Your task to perform on an android device: turn off translation in the chrome app Image 0: 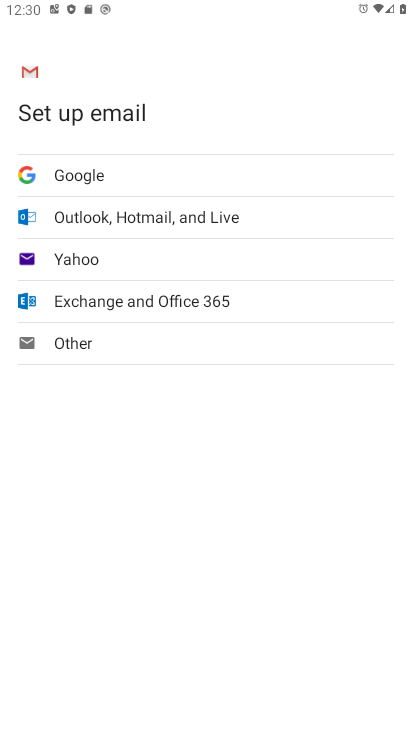
Step 0: press home button
Your task to perform on an android device: turn off translation in the chrome app Image 1: 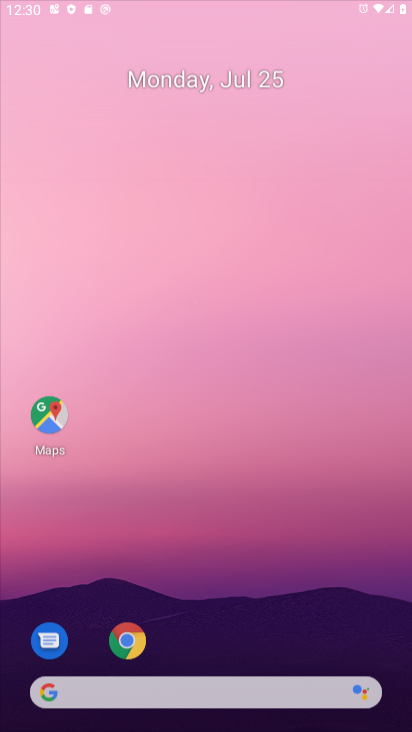
Step 1: drag from (388, 693) to (176, 10)
Your task to perform on an android device: turn off translation in the chrome app Image 2: 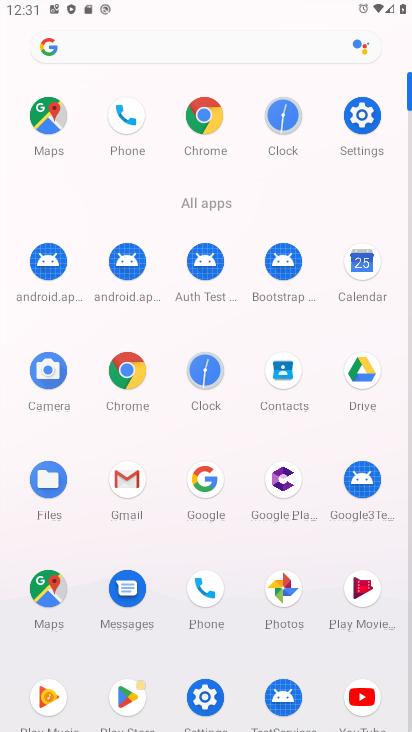
Step 2: click (131, 377)
Your task to perform on an android device: turn off translation in the chrome app Image 3: 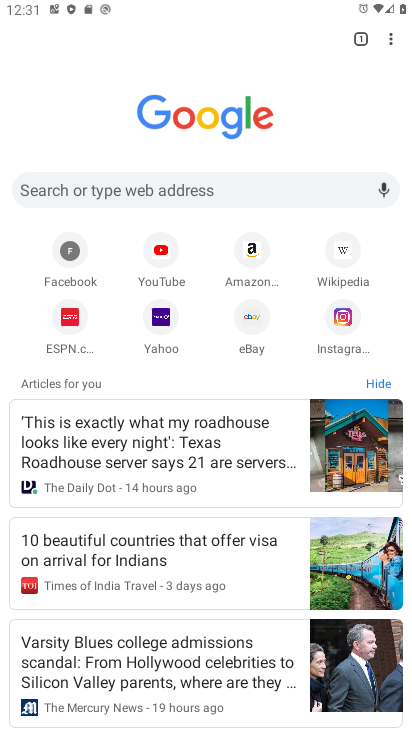
Step 3: click (391, 37)
Your task to perform on an android device: turn off translation in the chrome app Image 4: 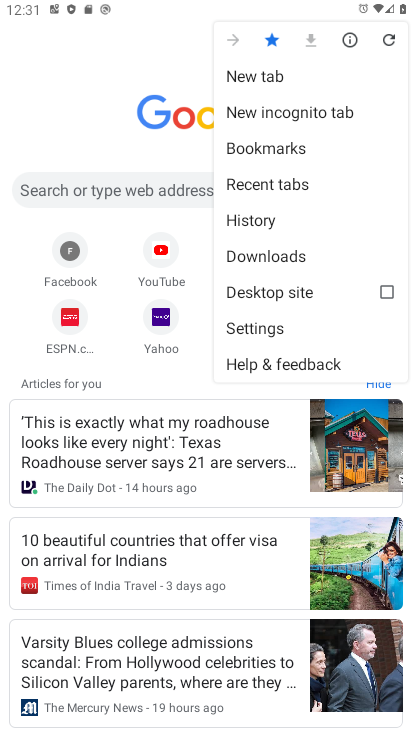
Step 4: click (257, 334)
Your task to perform on an android device: turn off translation in the chrome app Image 5: 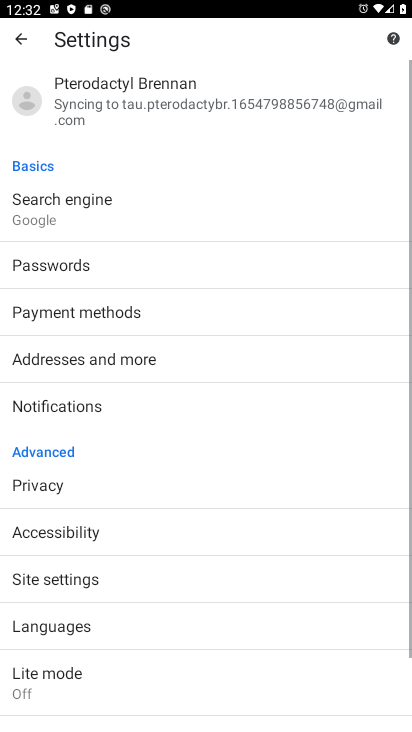
Step 5: click (75, 633)
Your task to perform on an android device: turn off translation in the chrome app Image 6: 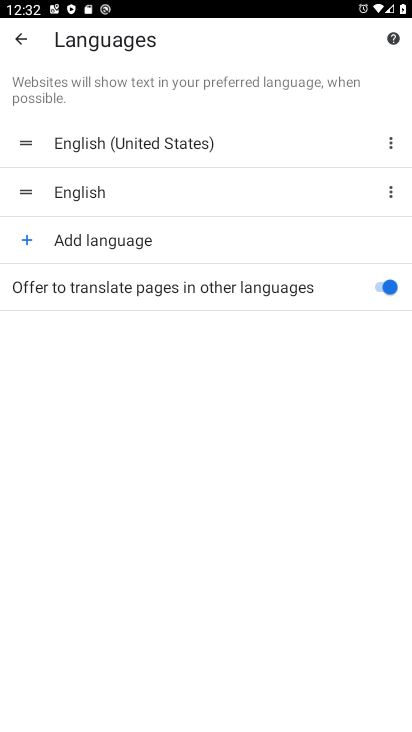
Step 6: click (364, 283)
Your task to perform on an android device: turn off translation in the chrome app Image 7: 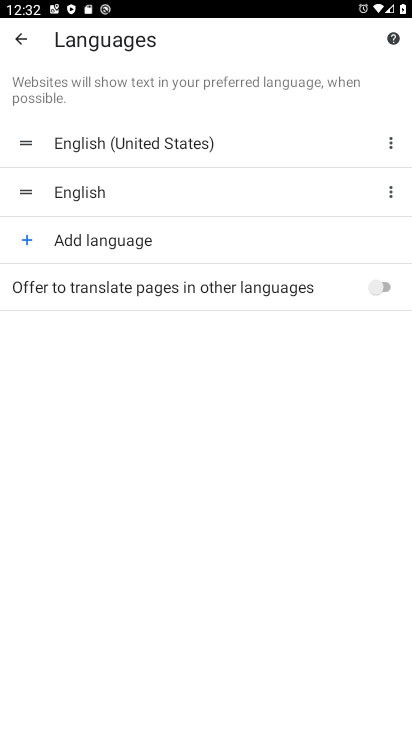
Step 7: task complete